Your task to perform on an android device: Open Google Chrome and click the shortcut for Amazon.com Image 0: 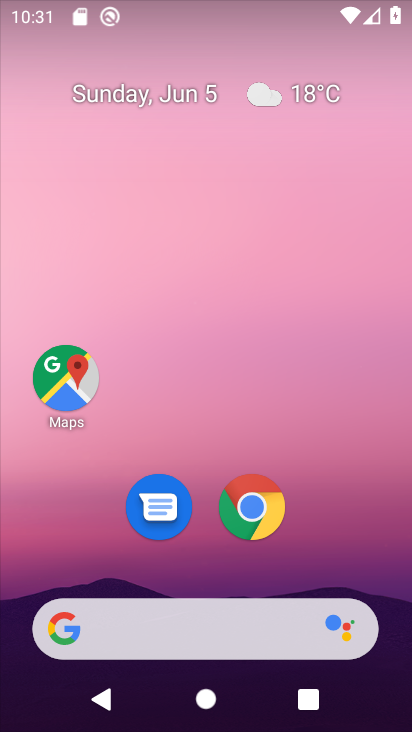
Step 0: click (259, 516)
Your task to perform on an android device: Open Google Chrome and click the shortcut for Amazon.com Image 1: 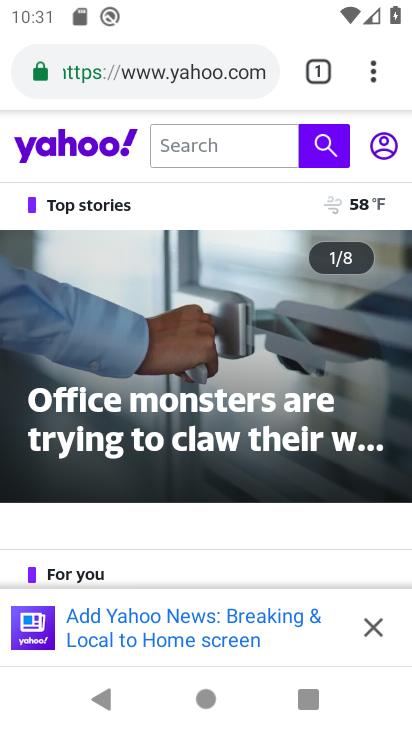
Step 1: click (375, 70)
Your task to perform on an android device: Open Google Chrome and click the shortcut for Amazon.com Image 2: 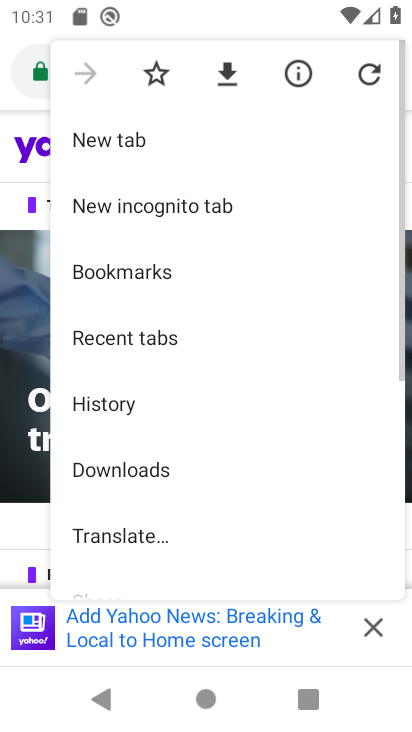
Step 2: click (112, 152)
Your task to perform on an android device: Open Google Chrome and click the shortcut for Amazon.com Image 3: 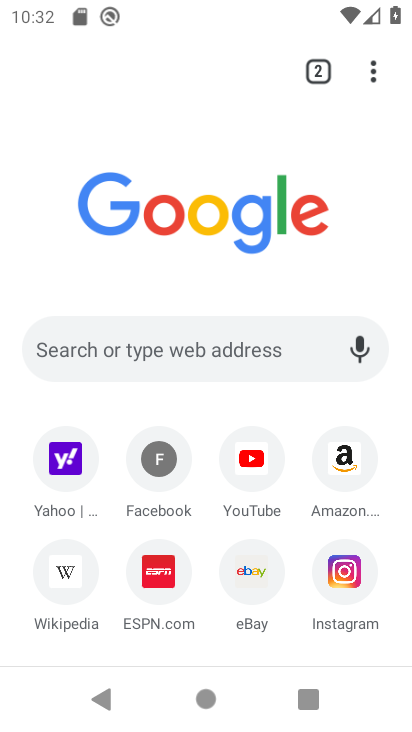
Step 3: click (345, 462)
Your task to perform on an android device: Open Google Chrome and click the shortcut for Amazon.com Image 4: 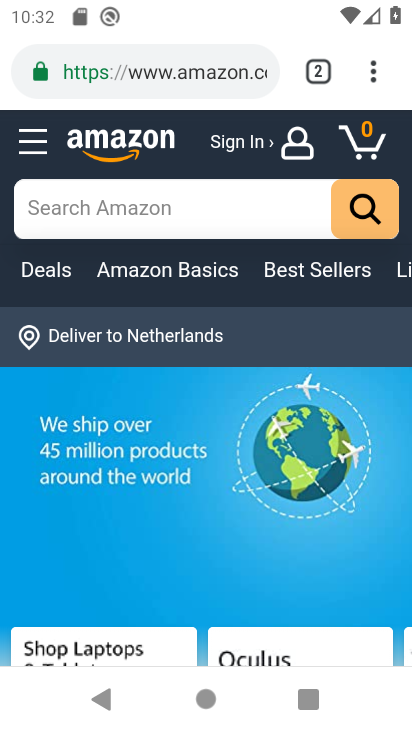
Step 4: task complete